Your task to perform on an android device: empty trash in the gmail app Image 0: 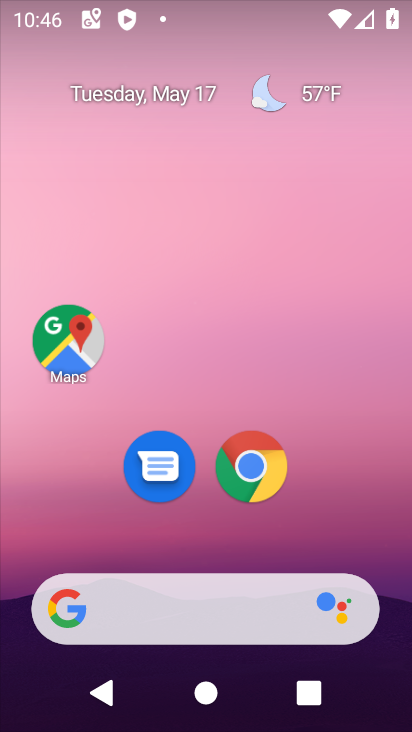
Step 0: drag from (166, 532) to (226, 20)
Your task to perform on an android device: empty trash in the gmail app Image 1: 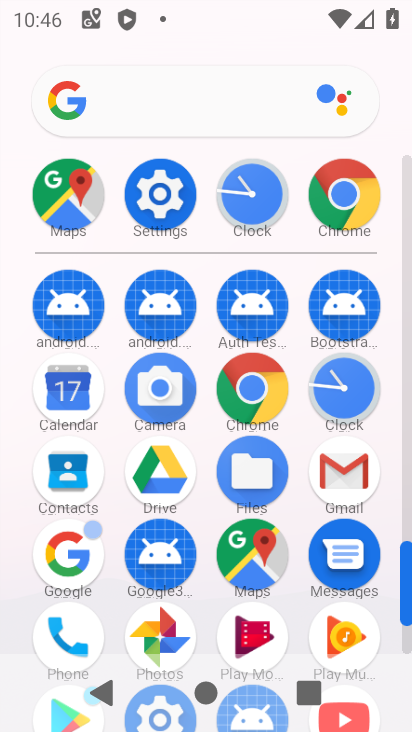
Step 1: click (359, 486)
Your task to perform on an android device: empty trash in the gmail app Image 2: 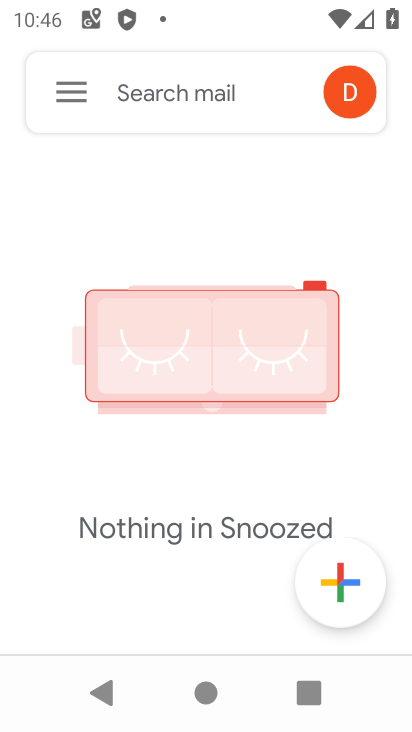
Step 2: click (56, 101)
Your task to perform on an android device: empty trash in the gmail app Image 3: 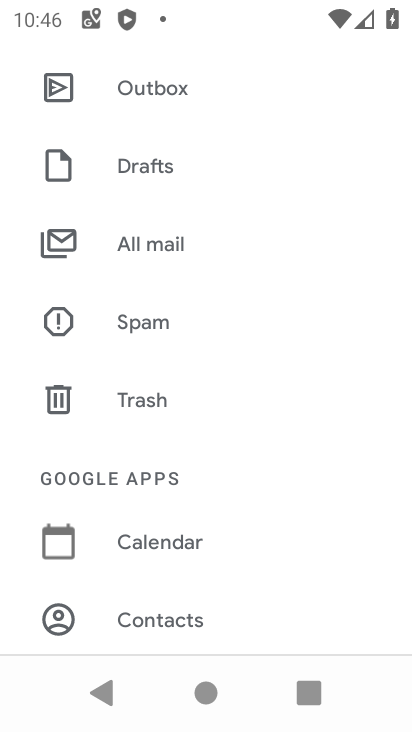
Step 3: click (161, 396)
Your task to perform on an android device: empty trash in the gmail app Image 4: 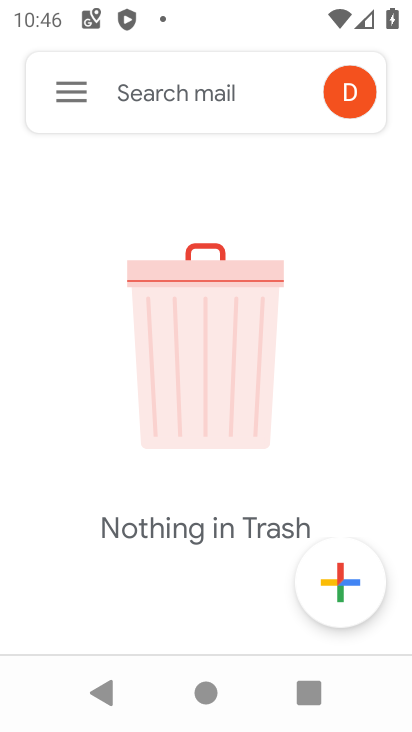
Step 4: task complete